Your task to perform on an android device: Search for Mexican restaurants on Maps Image 0: 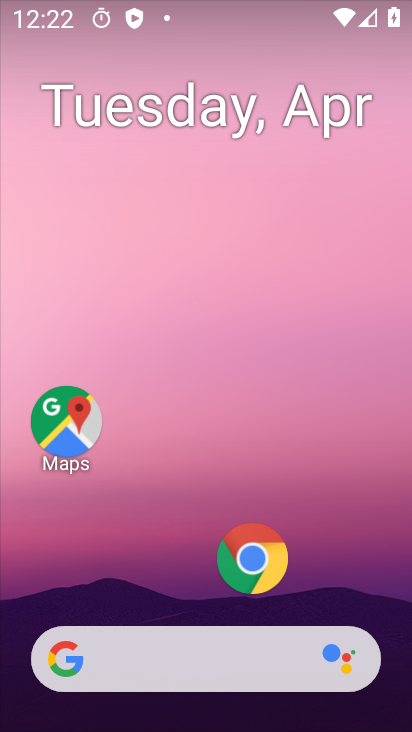
Step 0: click (66, 422)
Your task to perform on an android device: Search for Mexican restaurants on Maps Image 1: 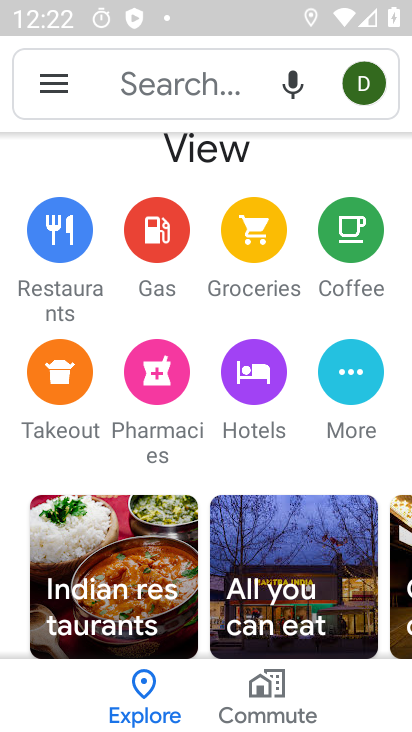
Step 1: click (158, 95)
Your task to perform on an android device: Search for Mexican restaurants on Maps Image 2: 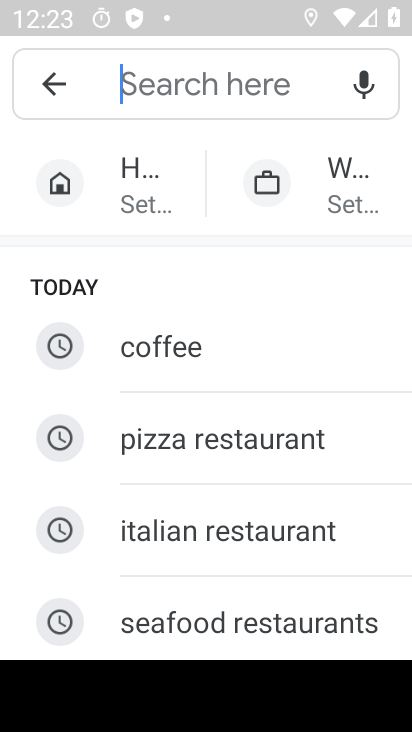
Step 2: type "Mexican restaurants"
Your task to perform on an android device: Search for Mexican restaurants on Maps Image 3: 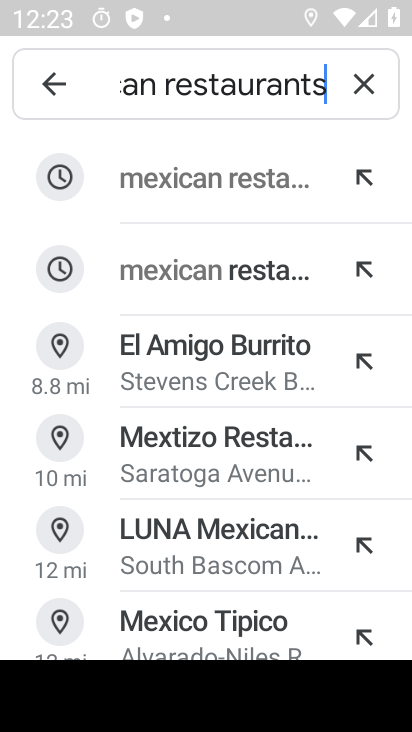
Step 3: click (169, 191)
Your task to perform on an android device: Search for Mexican restaurants on Maps Image 4: 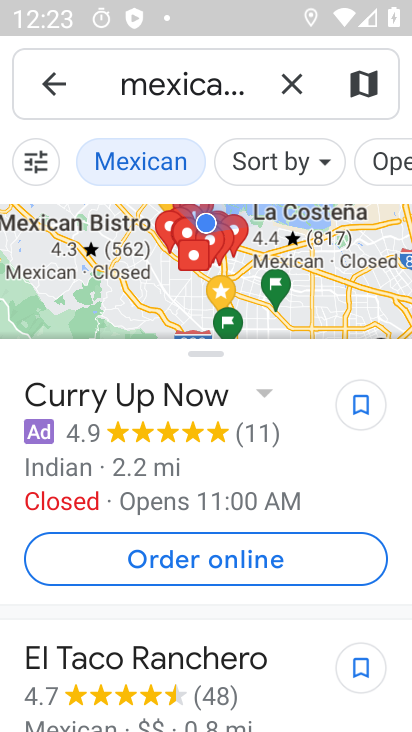
Step 4: task complete